Your task to perform on an android device: How much does a 2 bedroom apartment rent for in Houston? Image 0: 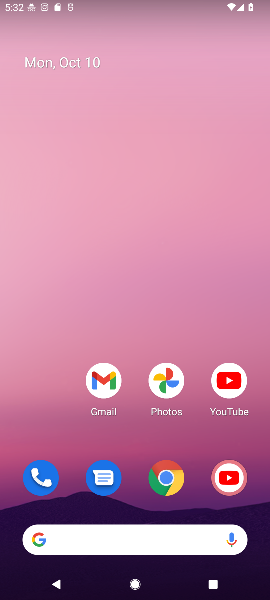
Step 0: click (166, 480)
Your task to perform on an android device: How much does a 2 bedroom apartment rent for in Houston? Image 1: 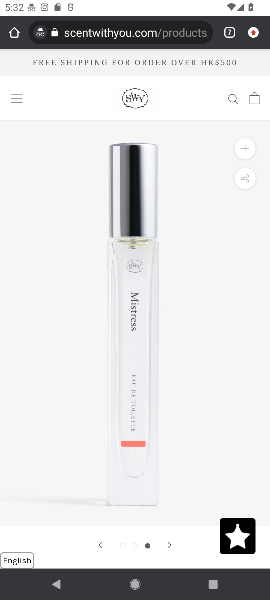
Step 1: click (162, 42)
Your task to perform on an android device: How much does a 2 bedroom apartment rent for in Houston? Image 2: 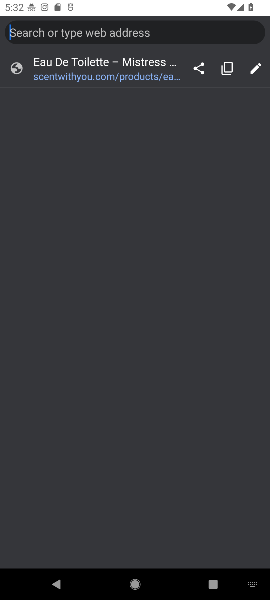
Step 2: type "How much does a 2 bedroom apartment rent for in Houston?"
Your task to perform on an android device: How much does a 2 bedroom apartment rent for in Houston? Image 3: 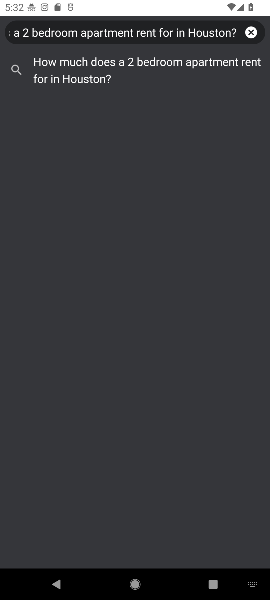
Step 3: click (59, 66)
Your task to perform on an android device: How much does a 2 bedroom apartment rent for in Houston? Image 4: 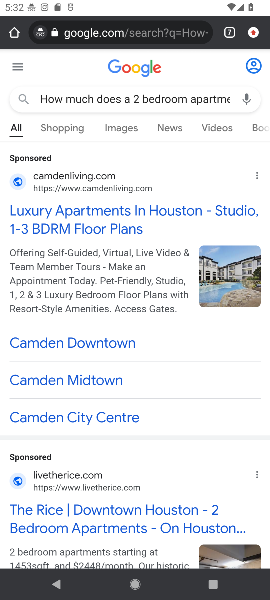
Step 4: drag from (71, 551) to (129, 126)
Your task to perform on an android device: How much does a 2 bedroom apartment rent for in Houston? Image 5: 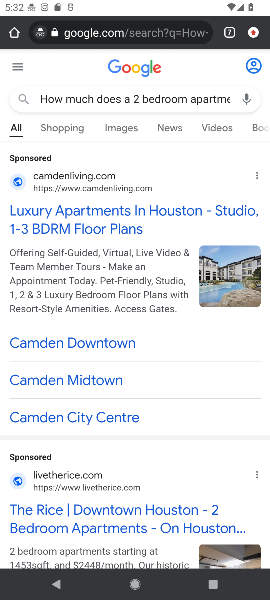
Step 5: drag from (104, 540) to (155, 124)
Your task to perform on an android device: How much does a 2 bedroom apartment rent for in Houston? Image 6: 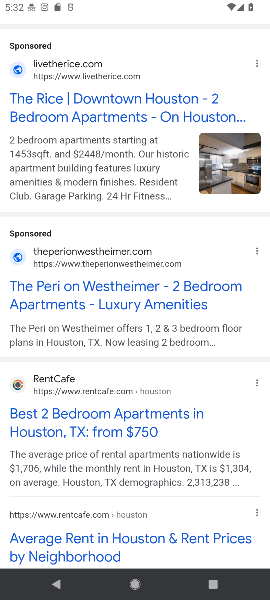
Step 6: drag from (69, 484) to (128, 139)
Your task to perform on an android device: How much does a 2 bedroom apartment rent for in Houston? Image 7: 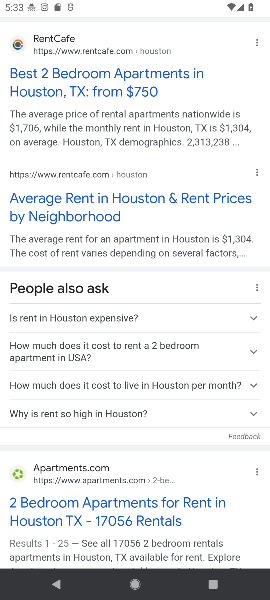
Step 7: click (127, 87)
Your task to perform on an android device: How much does a 2 bedroom apartment rent for in Houston? Image 8: 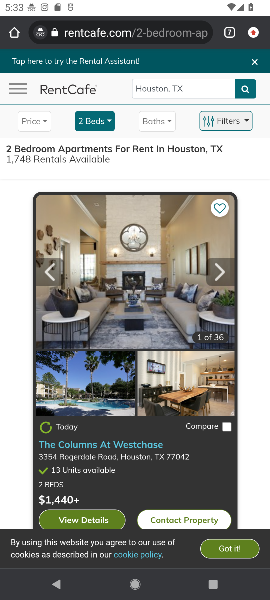
Step 8: task complete